Your task to perform on an android device: open a new tab in the chrome app Image 0: 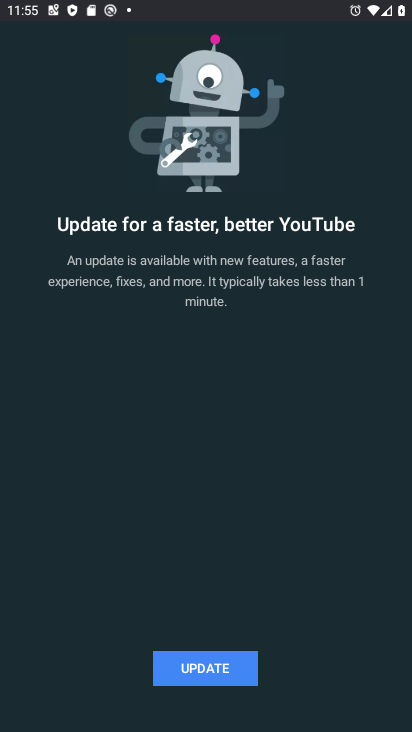
Step 0: press home button
Your task to perform on an android device: open a new tab in the chrome app Image 1: 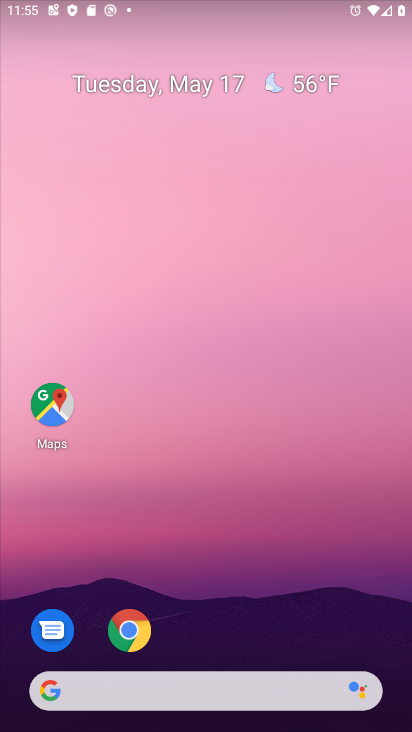
Step 1: drag from (294, 583) to (246, 163)
Your task to perform on an android device: open a new tab in the chrome app Image 2: 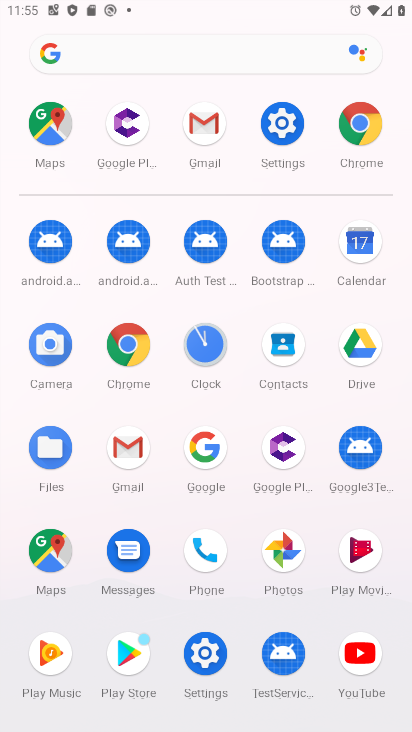
Step 2: click (148, 341)
Your task to perform on an android device: open a new tab in the chrome app Image 3: 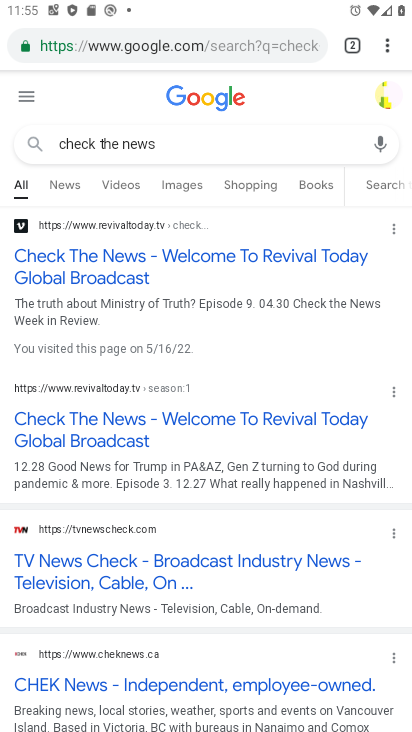
Step 3: click (347, 46)
Your task to perform on an android device: open a new tab in the chrome app Image 4: 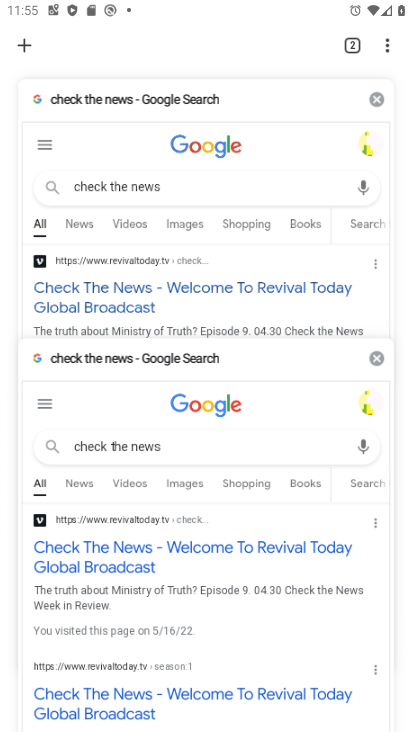
Step 4: click (26, 41)
Your task to perform on an android device: open a new tab in the chrome app Image 5: 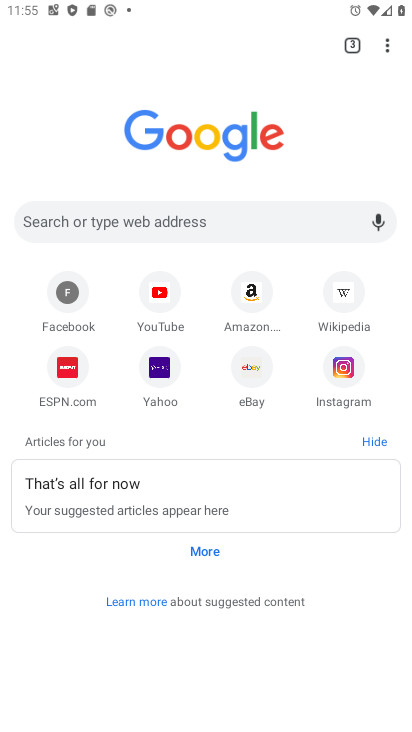
Step 5: task complete